Your task to perform on an android device: Add "usb-b" to the cart on newegg.com, then select checkout. Image 0: 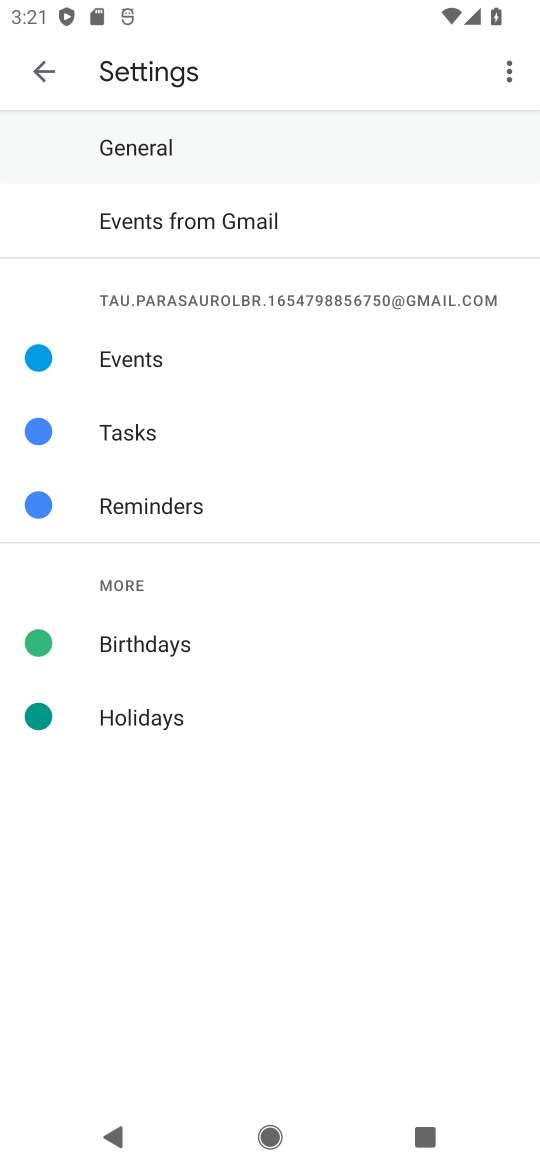
Step 0: press home button
Your task to perform on an android device: Add "usb-b" to the cart on newegg.com, then select checkout. Image 1: 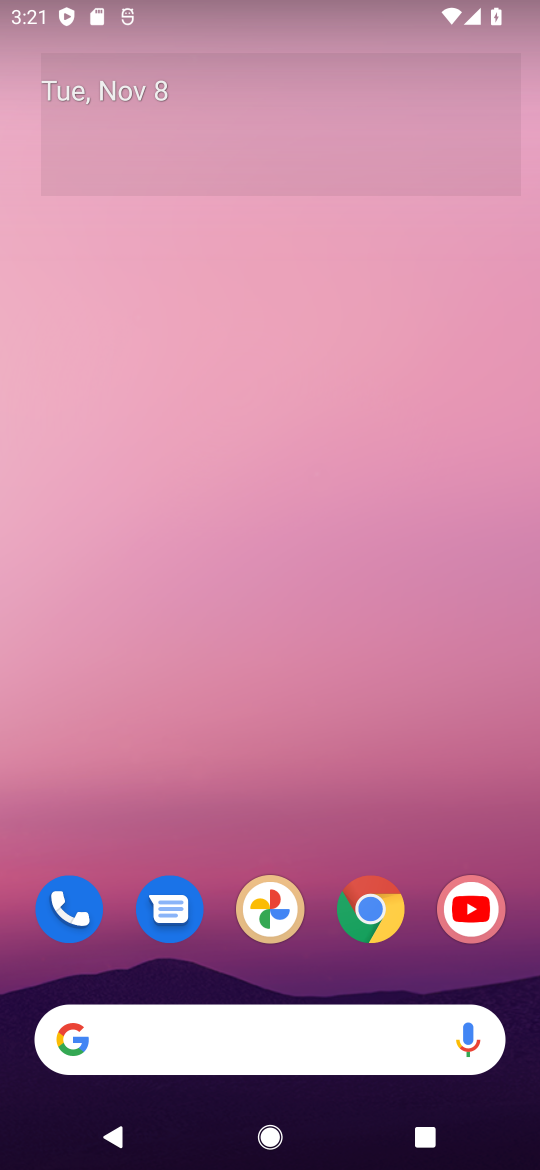
Step 1: click (372, 919)
Your task to perform on an android device: Add "usb-b" to the cart on newegg.com, then select checkout. Image 2: 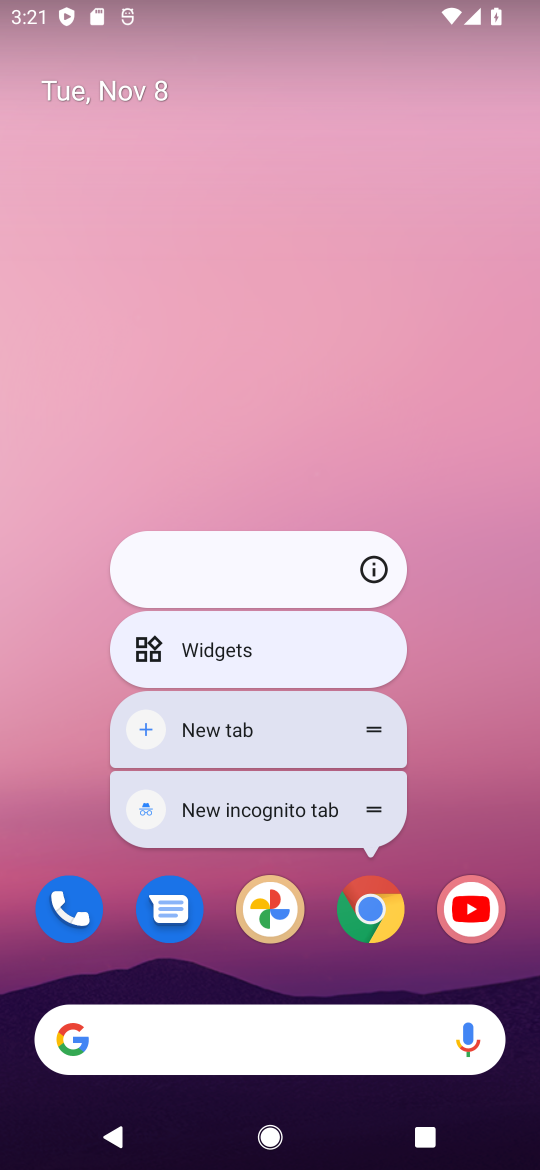
Step 2: click (369, 900)
Your task to perform on an android device: Add "usb-b" to the cart on newegg.com, then select checkout. Image 3: 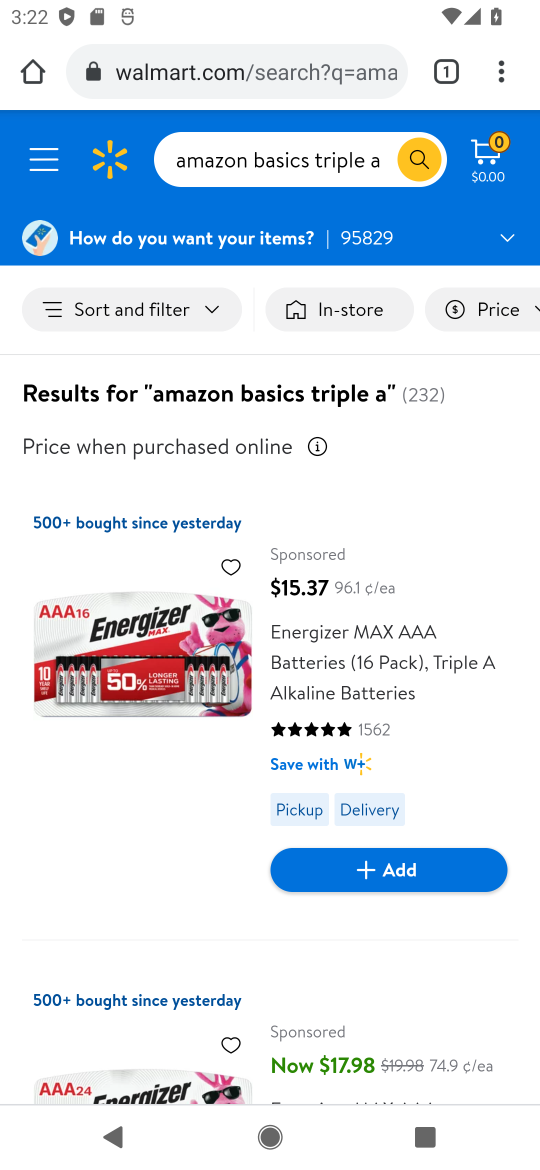
Step 3: click (308, 63)
Your task to perform on an android device: Add "usb-b" to the cart on newegg.com, then select checkout. Image 4: 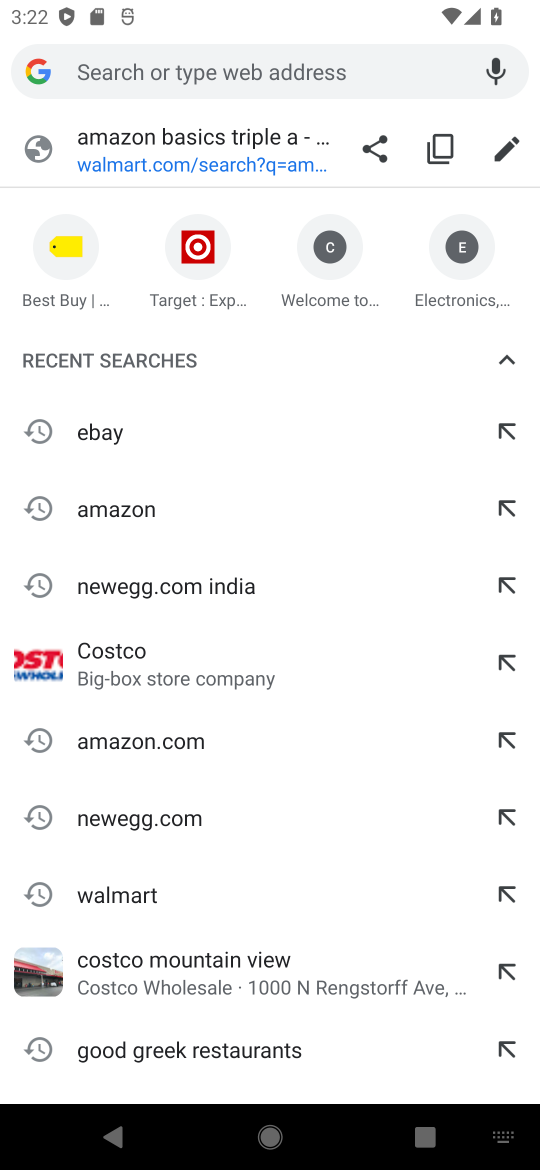
Step 4: click (97, 580)
Your task to perform on an android device: Add "usb-b" to the cart on newegg.com, then select checkout. Image 5: 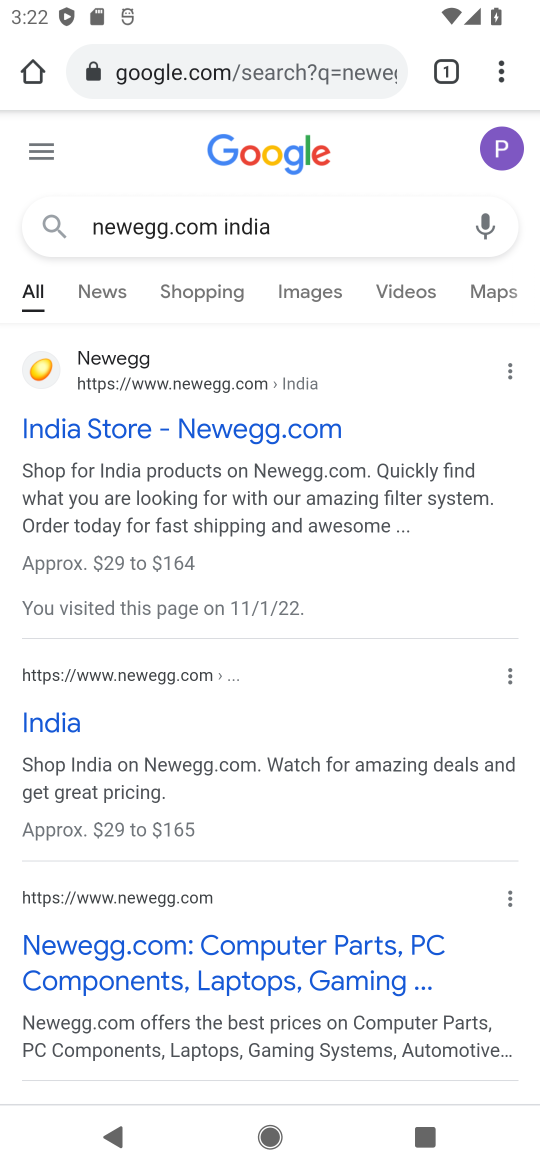
Step 5: click (270, 427)
Your task to perform on an android device: Add "usb-b" to the cart on newegg.com, then select checkout. Image 6: 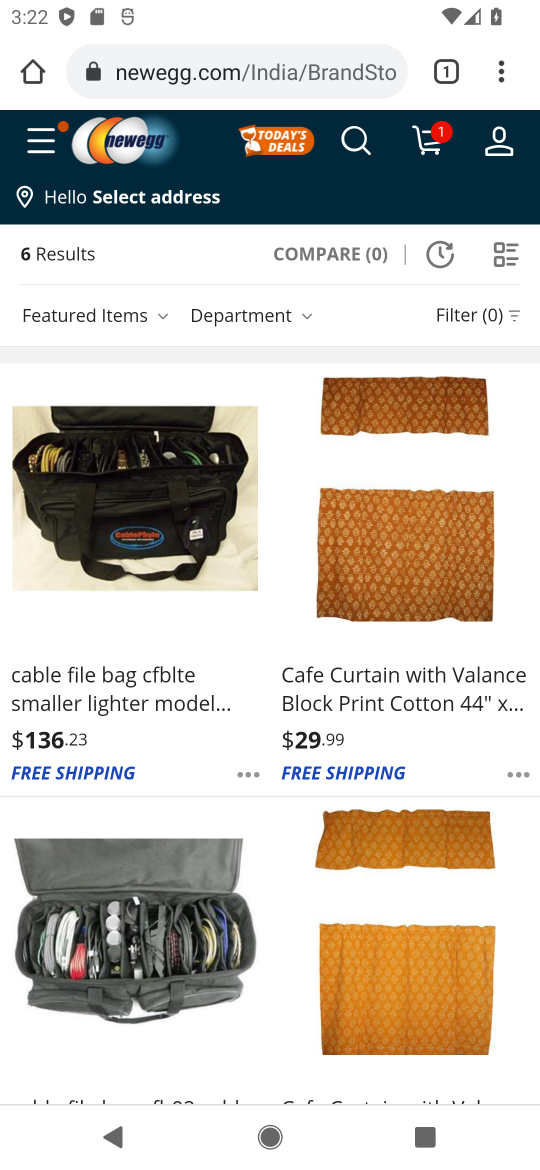
Step 6: click (357, 141)
Your task to perform on an android device: Add "usb-b" to the cart on newegg.com, then select checkout. Image 7: 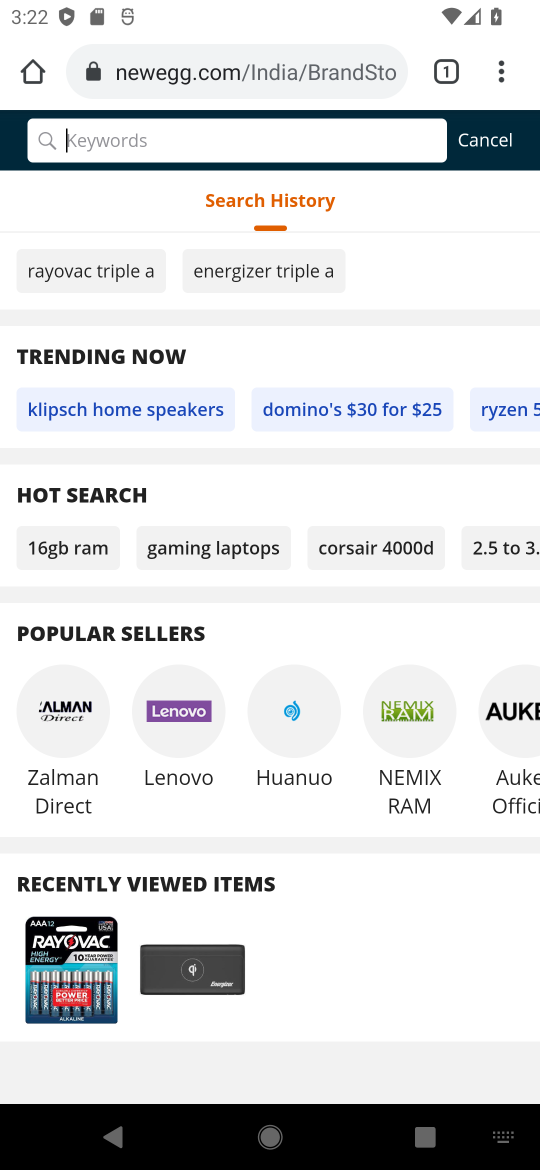
Step 7: click (195, 140)
Your task to perform on an android device: Add "usb-b" to the cart on newegg.com, then select checkout. Image 8: 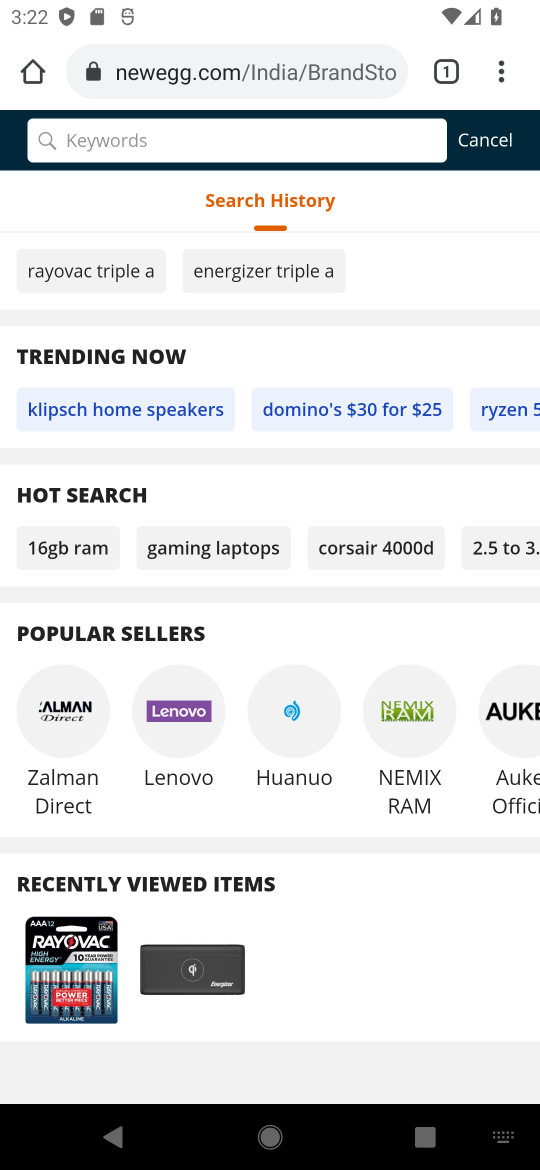
Step 8: type "usb-b"
Your task to perform on an android device: Add "usb-b" to the cart on newegg.com, then select checkout. Image 9: 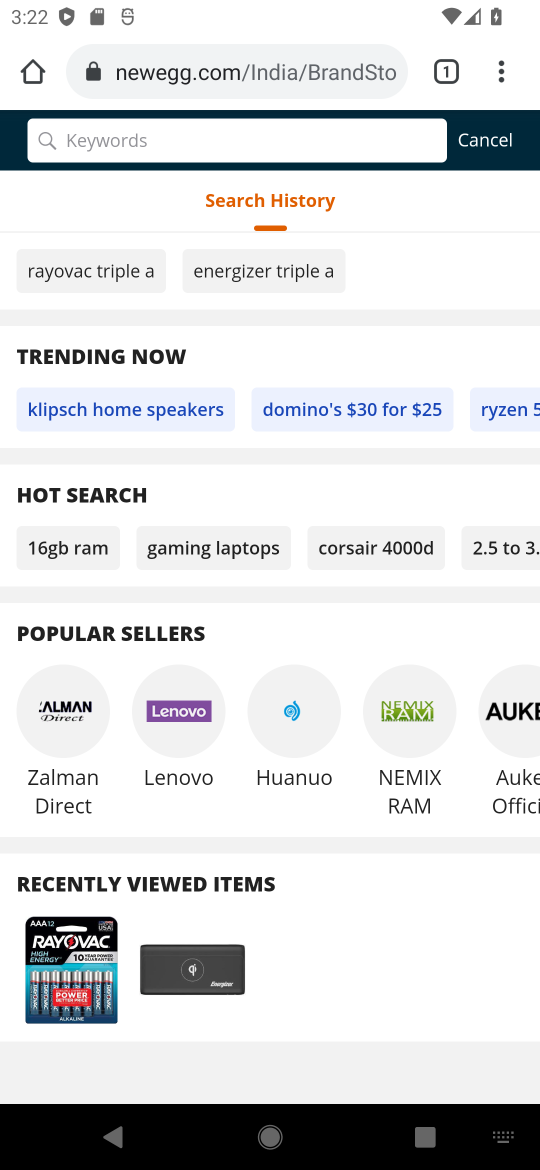
Step 9: press enter
Your task to perform on an android device: Add "usb-b" to the cart on newegg.com, then select checkout. Image 10: 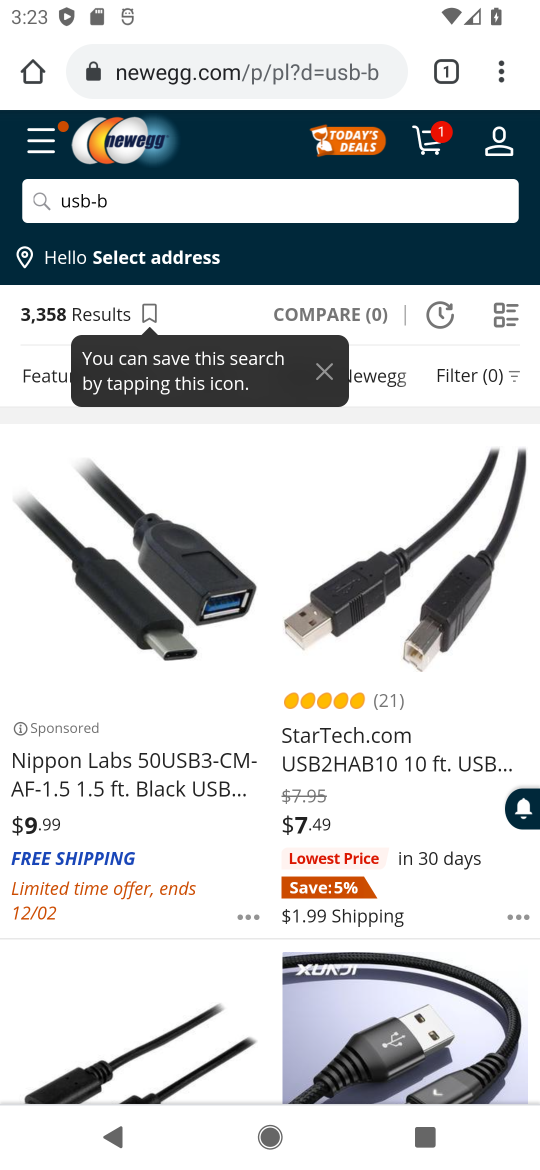
Step 10: click (139, 692)
Your task to perform on an android device: Add "usb-b" to the cart on newegg.com, then select checkout. Image 11: 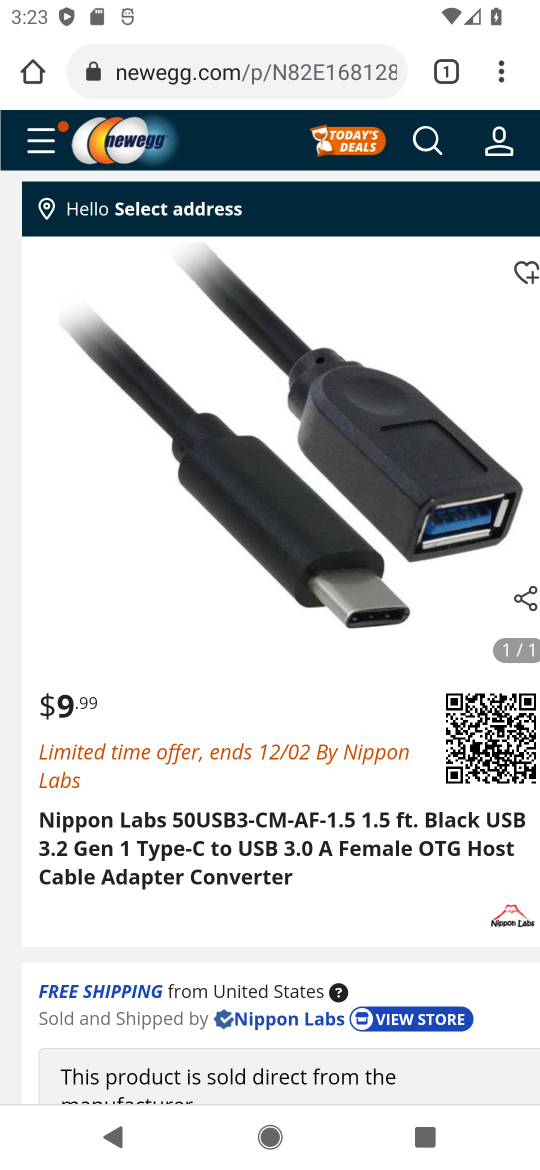
Step 11: task complete